Your task to perform on an android device: create a new album in the google photos Image 0: 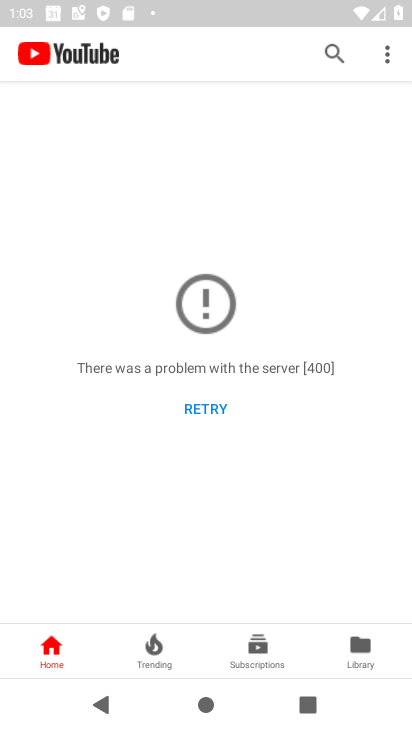
Step 0: press back button
Your task to perform on an android device: create a new album in the google photos Image 1: 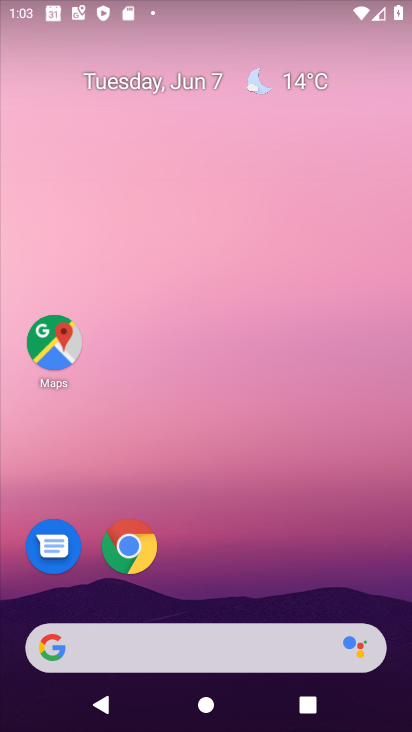
Step 1: drag from (242, 628) to (189, 2)
Your task to perform on an android device: create a new album in the google photos Image 2: 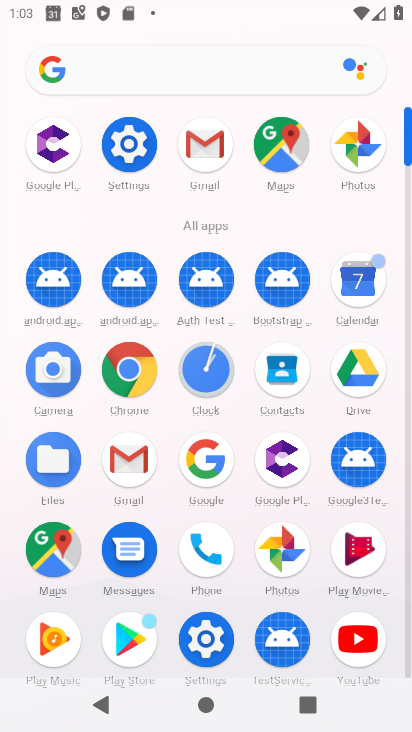
Step 2: click (274, 566)
Your task to perform on an android device: create a new album in the google photos Image 3: 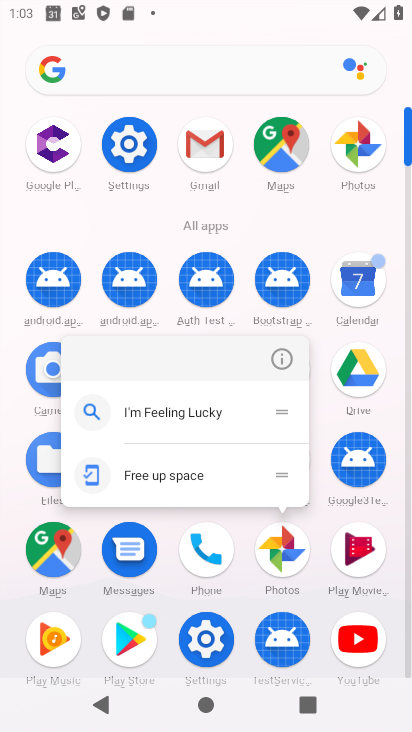
Step 3: click (268, 551)
Your task to perform on an android device: create a new album in the google photos Image 4: 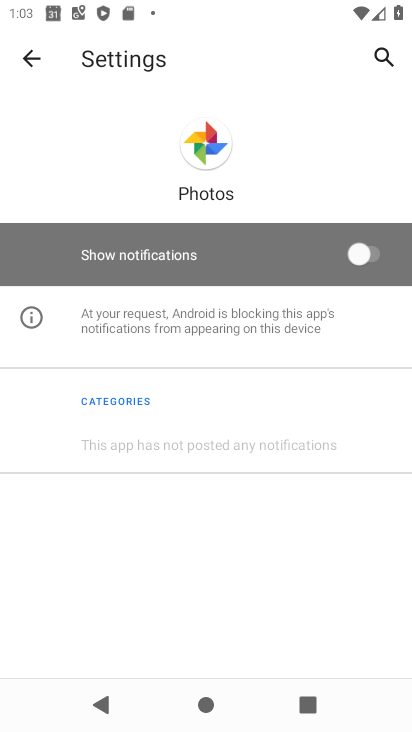
Step 4: click (24, 62)
Your task to perform on an android device: create a new album in the google photos Image 5: 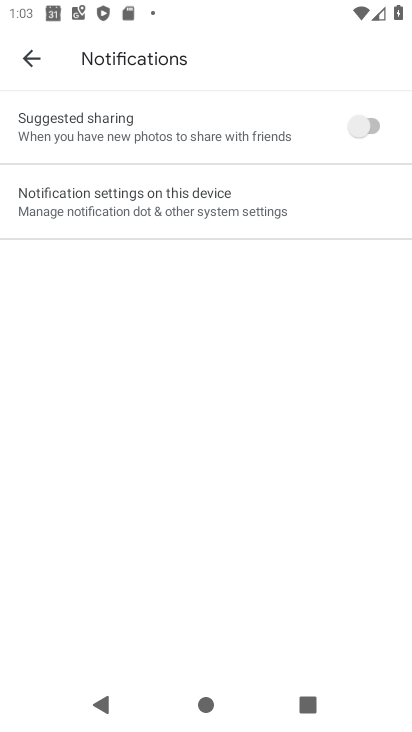
Step 5: click (24, 62)
Your task to perform on an android device: create a new album in the google photos Image 6: 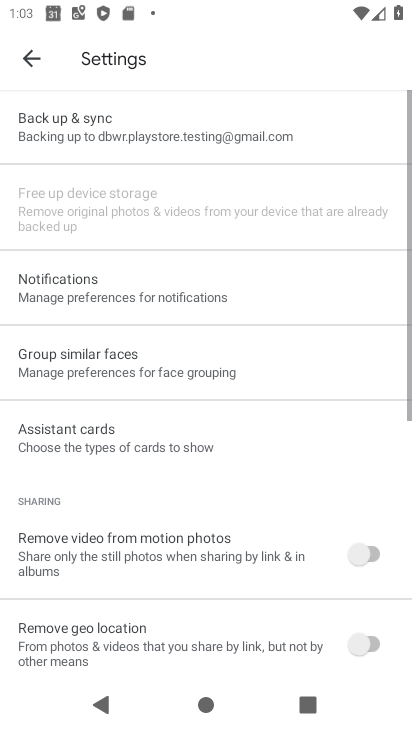
Step 6: click (25, 59)
Your task to perform on an android device: create a new album in the google photos Image 7: 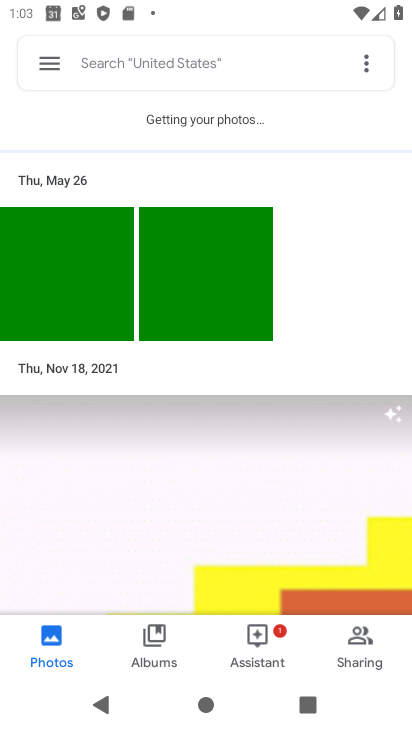
Step 7: click (107, 276)
Your task to perform on an android device: create a new album in the google photos Image 8: 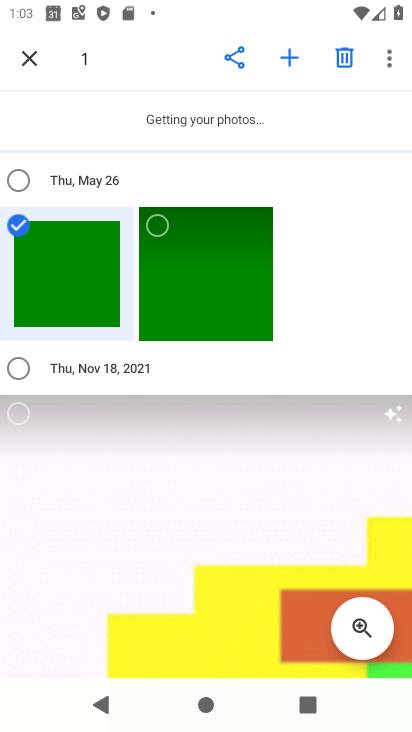
Step 8: click (199, 260)
Your task to perform on an android device: create a new album in the google photos Image 9: 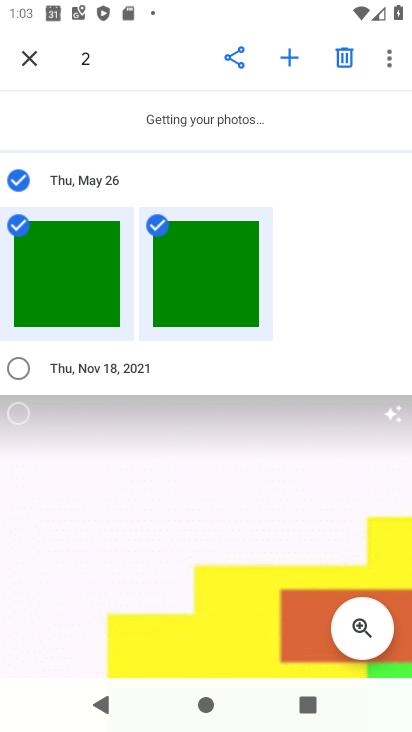
Step 9: click (300, 55)
Your task to perform on an android device: create a new album in the google photos Image 10: 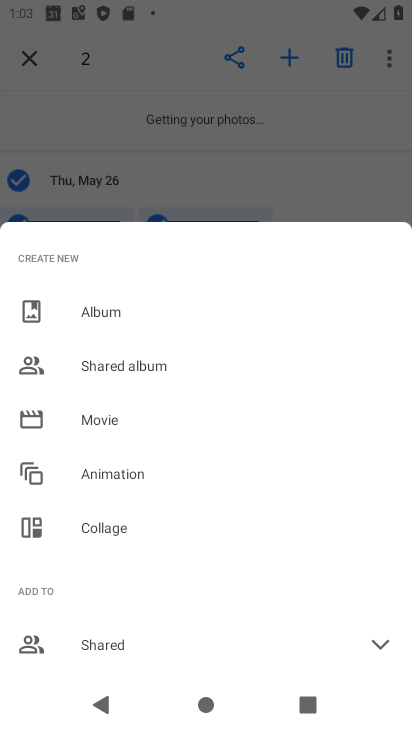
Step 10: click (135, 320)
Your task to perform on an android device: create a new album in the google photos Image 11: 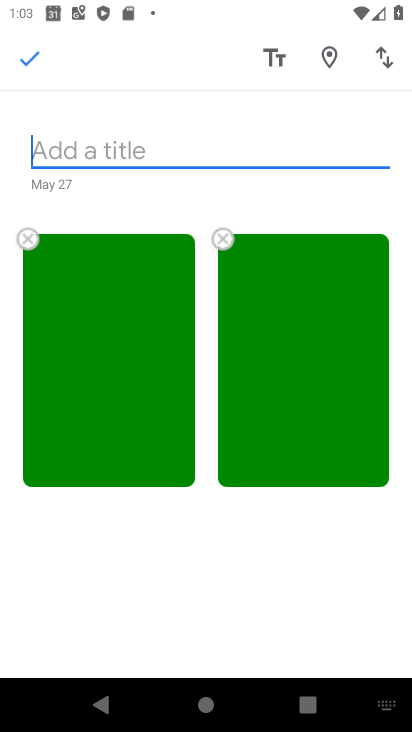
Step 11: type "ff"
Your task to perform on an android device: create a new album in the google photos Image 12: 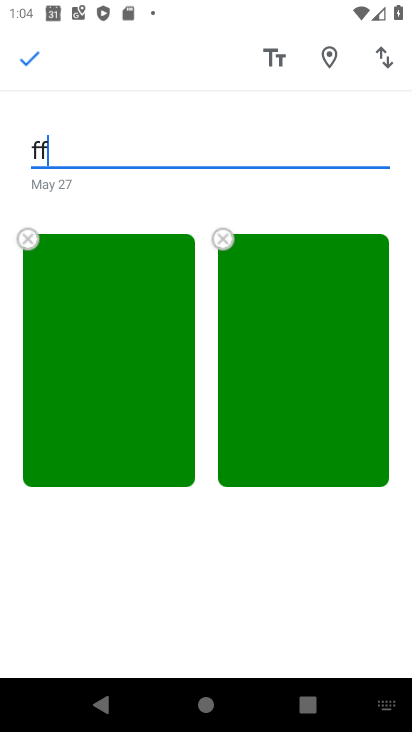
Step 12: type ""
Your task to perform on an android device: create a new album in the google photos Image 13: 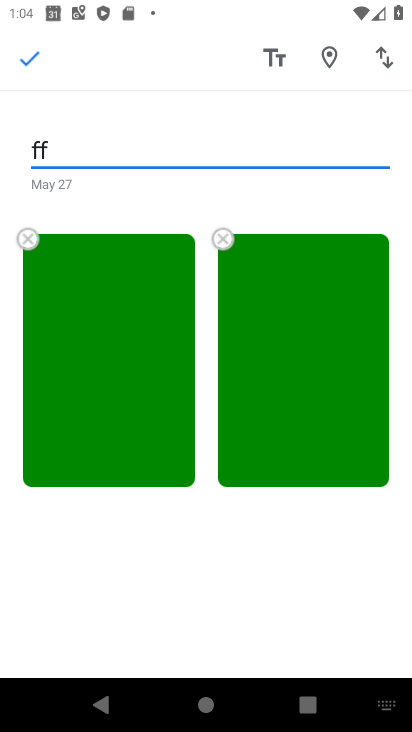
Step 13: click (36, 54)
Your task to perform on an android device: create a new album in the google photos Image 14: 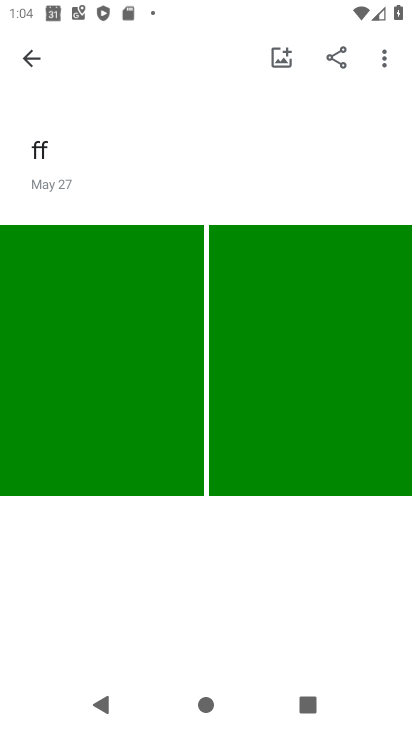
Step 14: task complete